Your task to perform on an android device: change the clock style Image 0: 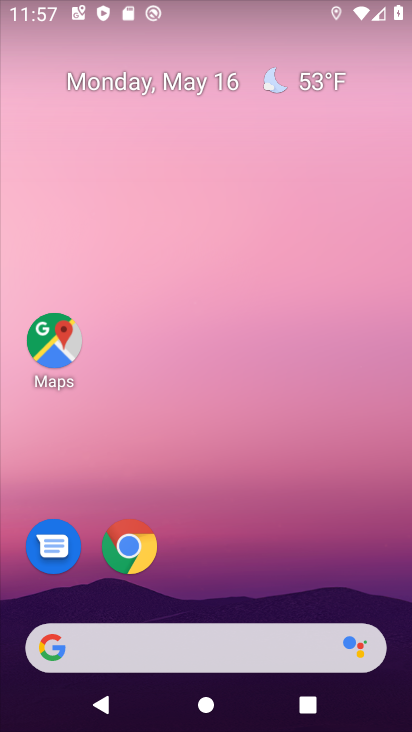
Step 0: drag from (236, 525) to (232, 164)
Your task to perform on an android device: change the clock style Image 1: 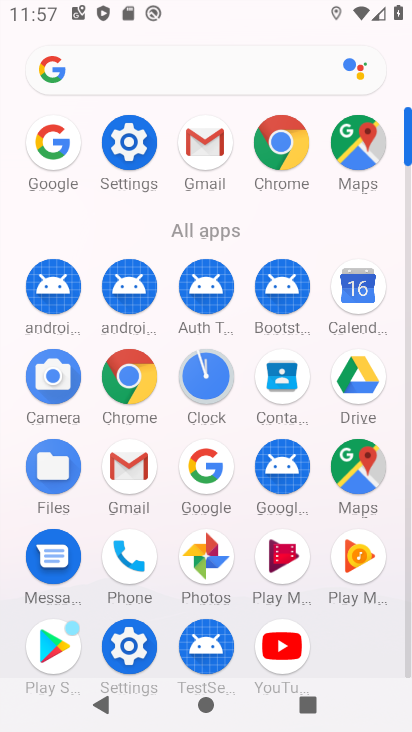
Step 1: click (207, 378)
Your task to perform on an android device: change the clock style Image 2: 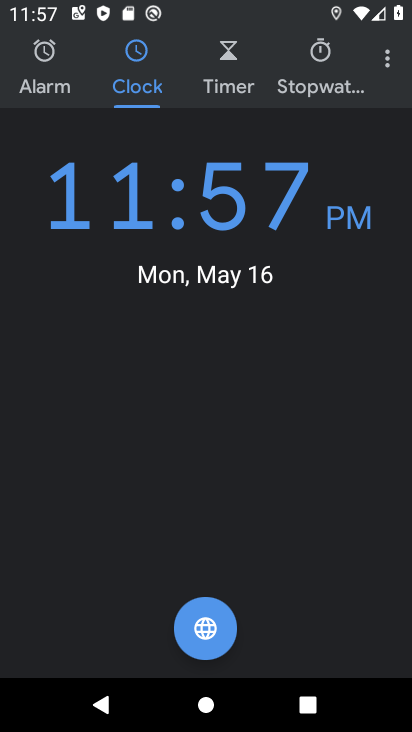
Step 2: click (379, 65)
Your task to perform on an android device: change the clock style Image 3: 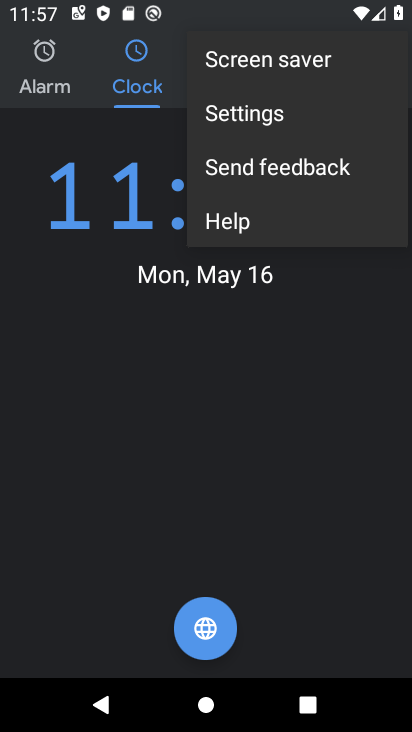
Step 3: click (279, 115)
Your task to perform on an android device: change the clock style Image 4: 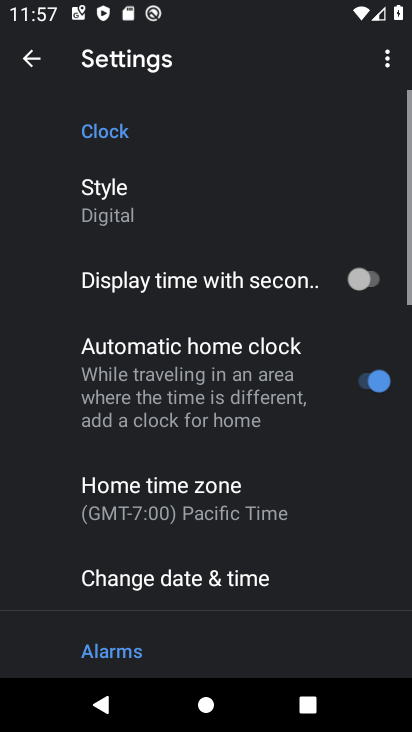
Step 4: click (153, 202)
Your task to perform on an android device: change the clock style Image 5: 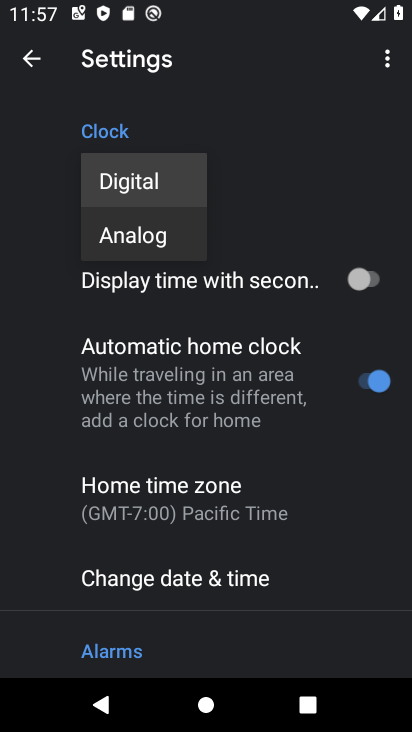
Step 5: click (141, 235)
Your task to perform on an android device: change the clock style Image 6: 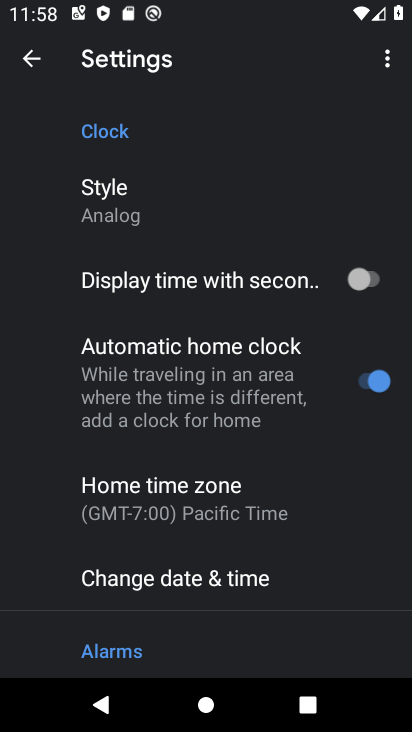
Step 6: task complete